Your task to perform on an android device: Search for beats solo 3 on bestbuy, select the first entry, add it to the cart, then select checkout. Image 0: 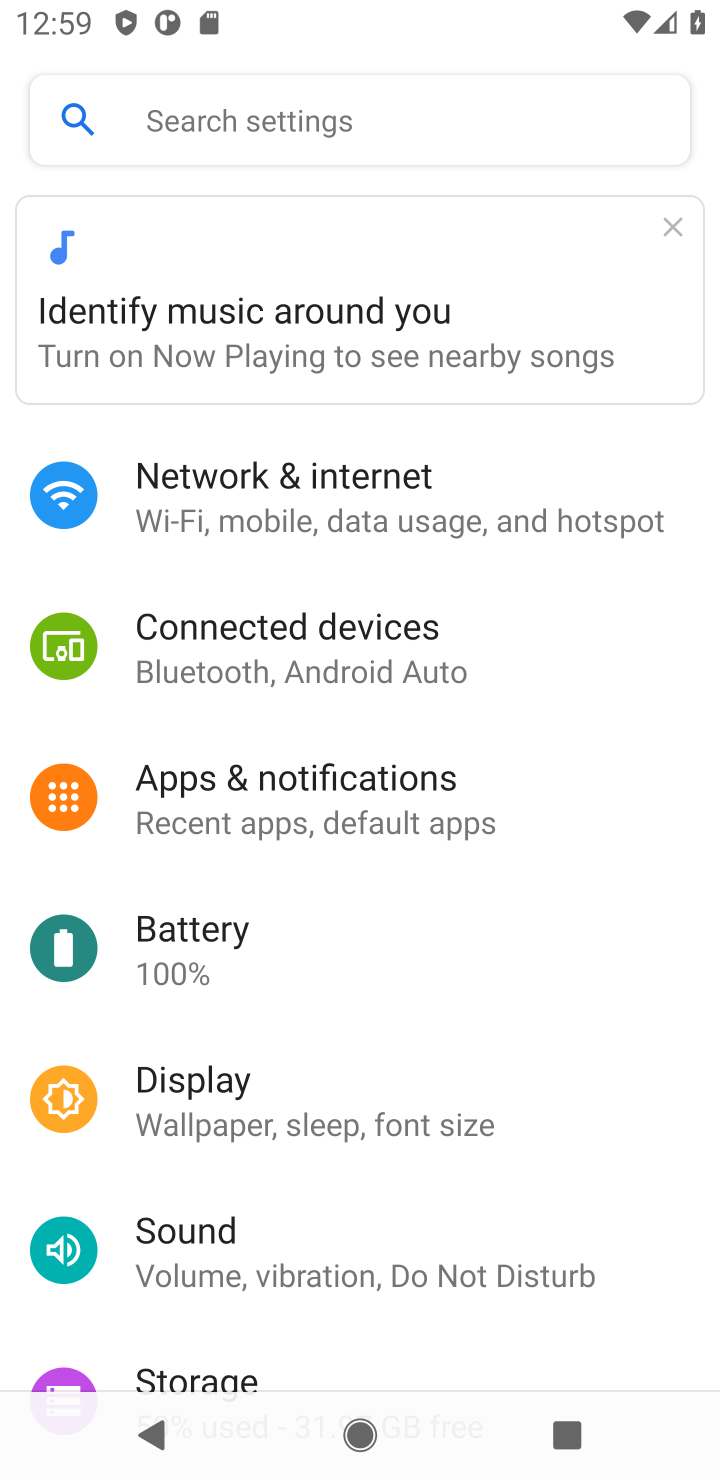
Step 0: press home button
Your task to perform on an android device: Search for beats solo 3 on bestbuy, select the first entry, add it to the cart, then select checkout. Image 1: 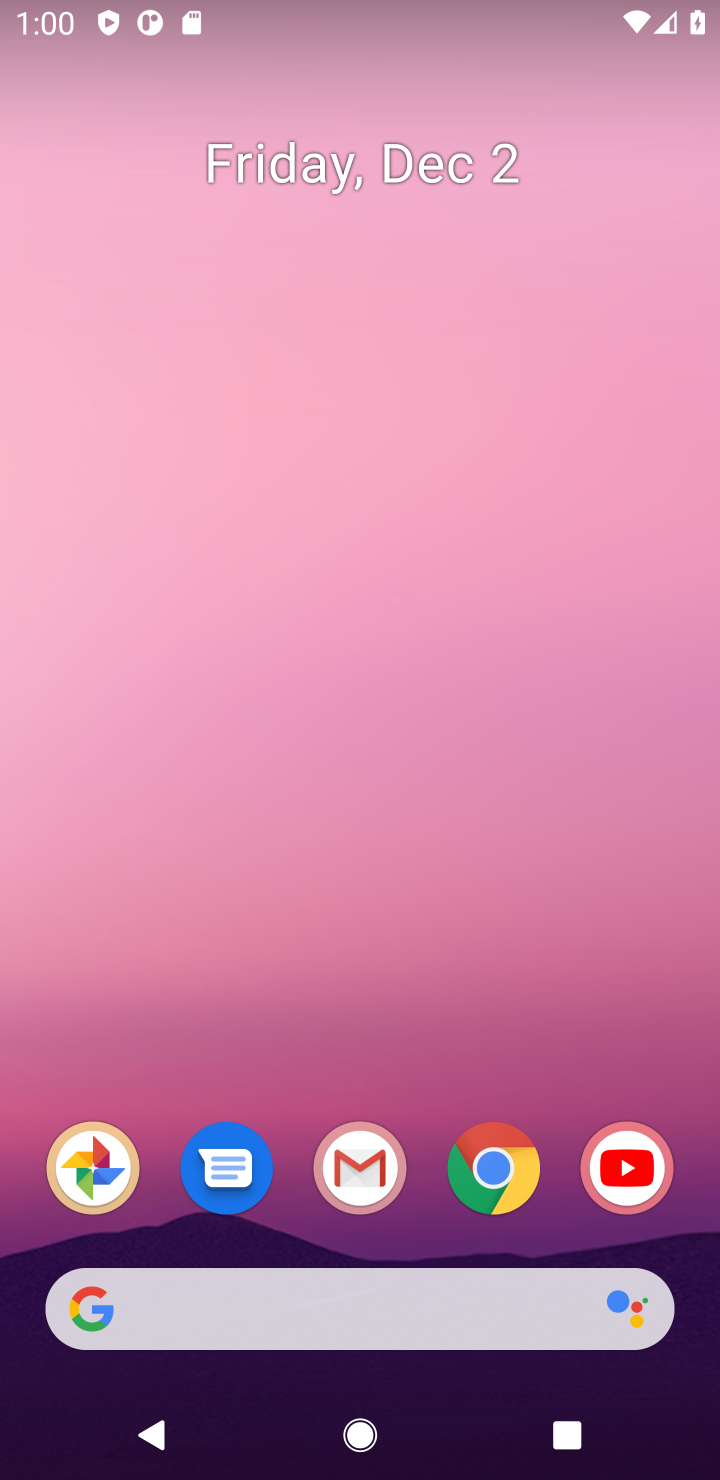
Step 1: click (495, 1170)
Your task to perform on an android device: Search for beats solo 3 on bestbuy, select the first entry, add it to the cart, then select checkout. Image 2: 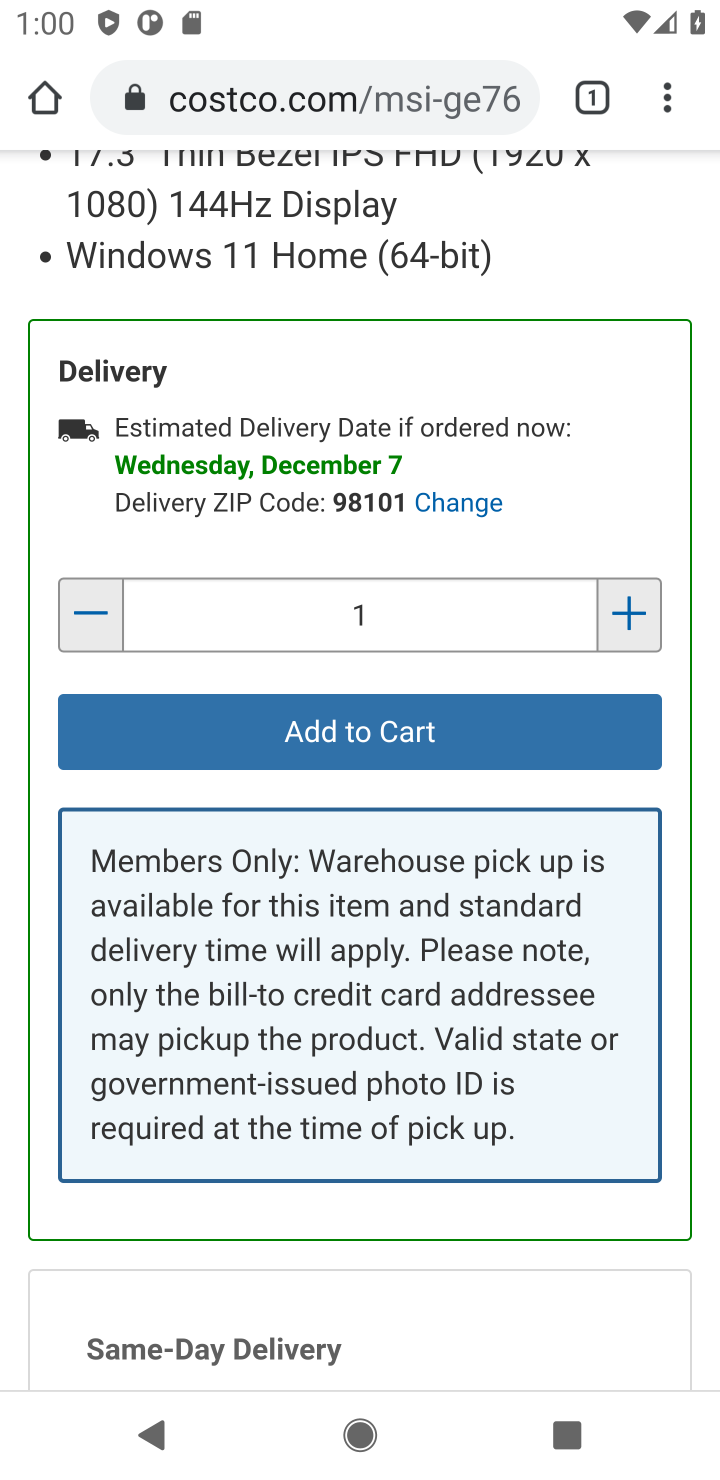
Step 2: click (312, 85)
Your task to perform on an android device: Search for beats solo 3 on bestbuy, select the first entry, add it to the cart, then select checkout. Image 3: 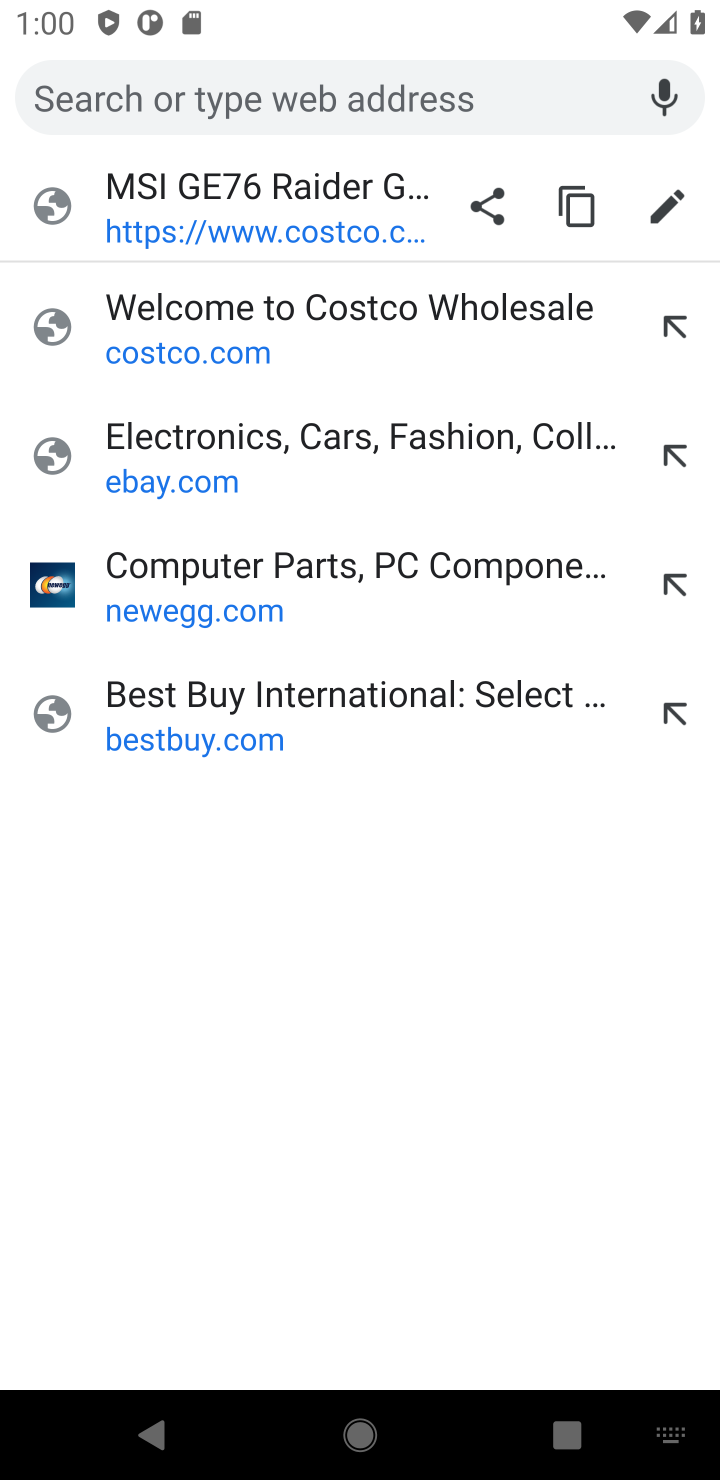
Step 3: click (260, 723)
Your task to perform on an android device: Search for beats solo 3 on bestbuy, select the first entry, add it to the cart, then select checkout. Image 4: 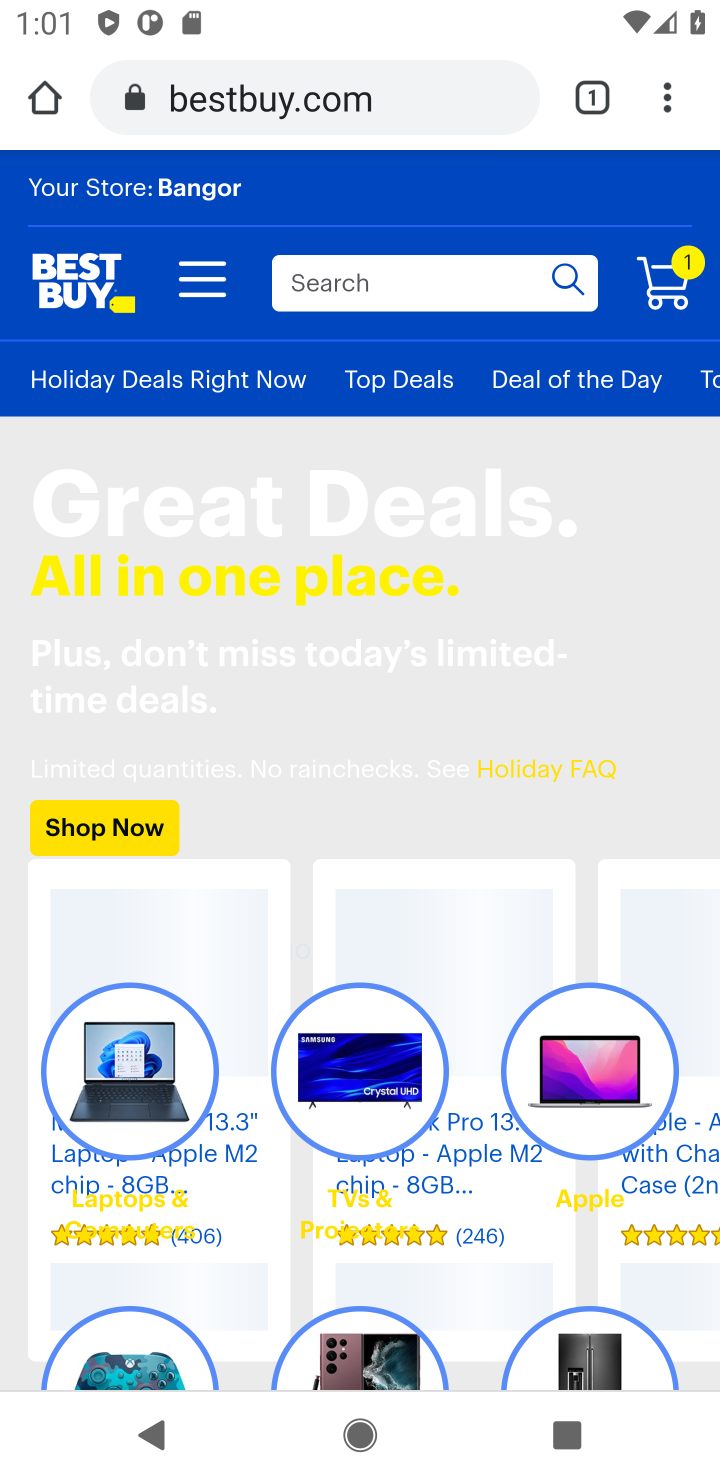
Step 4: click (437, 269)
Your task to perform on an android device: Search for beats solo 3 on bestbuy, select the first entry, add it to the cart, then select checkout. Image 5: 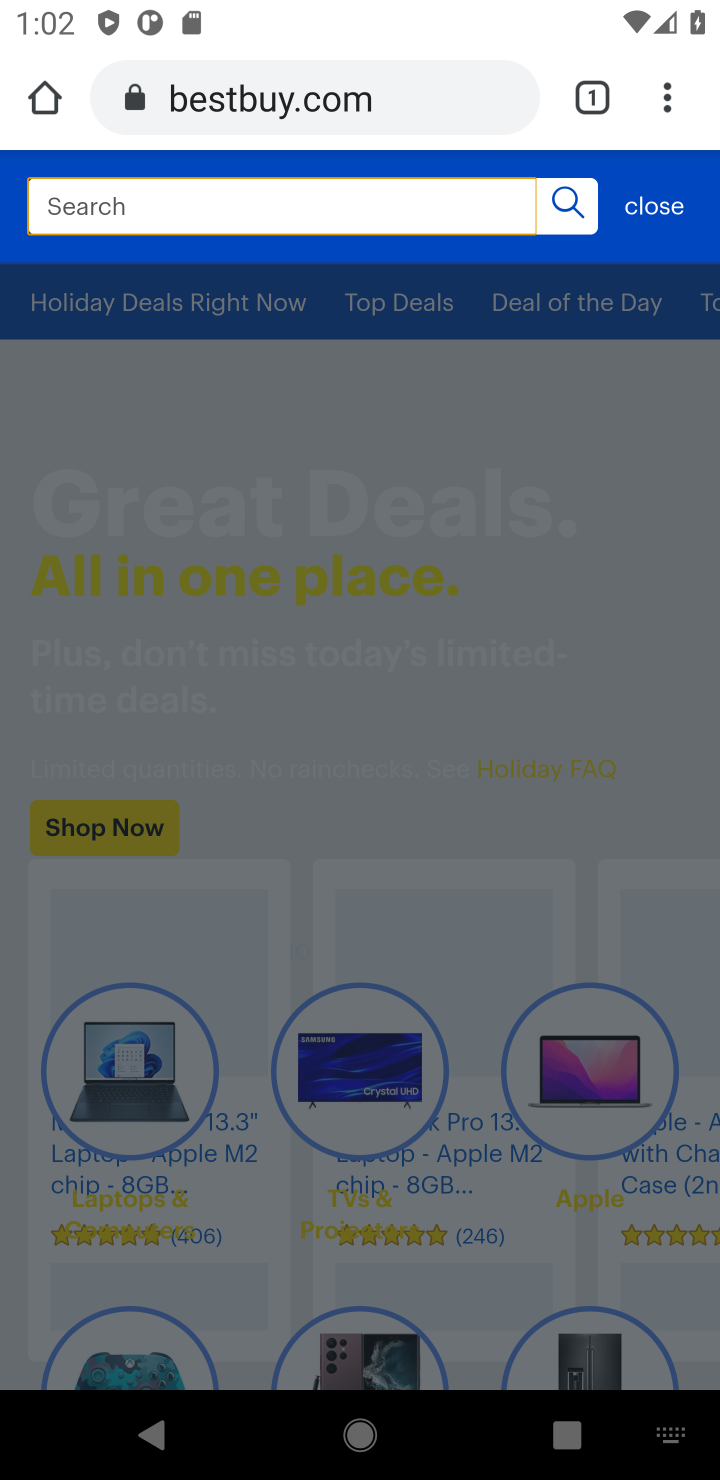
Step 5: type "beats solo 3"
Your task to perform on an android device: Search for beats solo 3 on bestbuy, select the first entry, add it to the cart, then select checkout. Image 6: 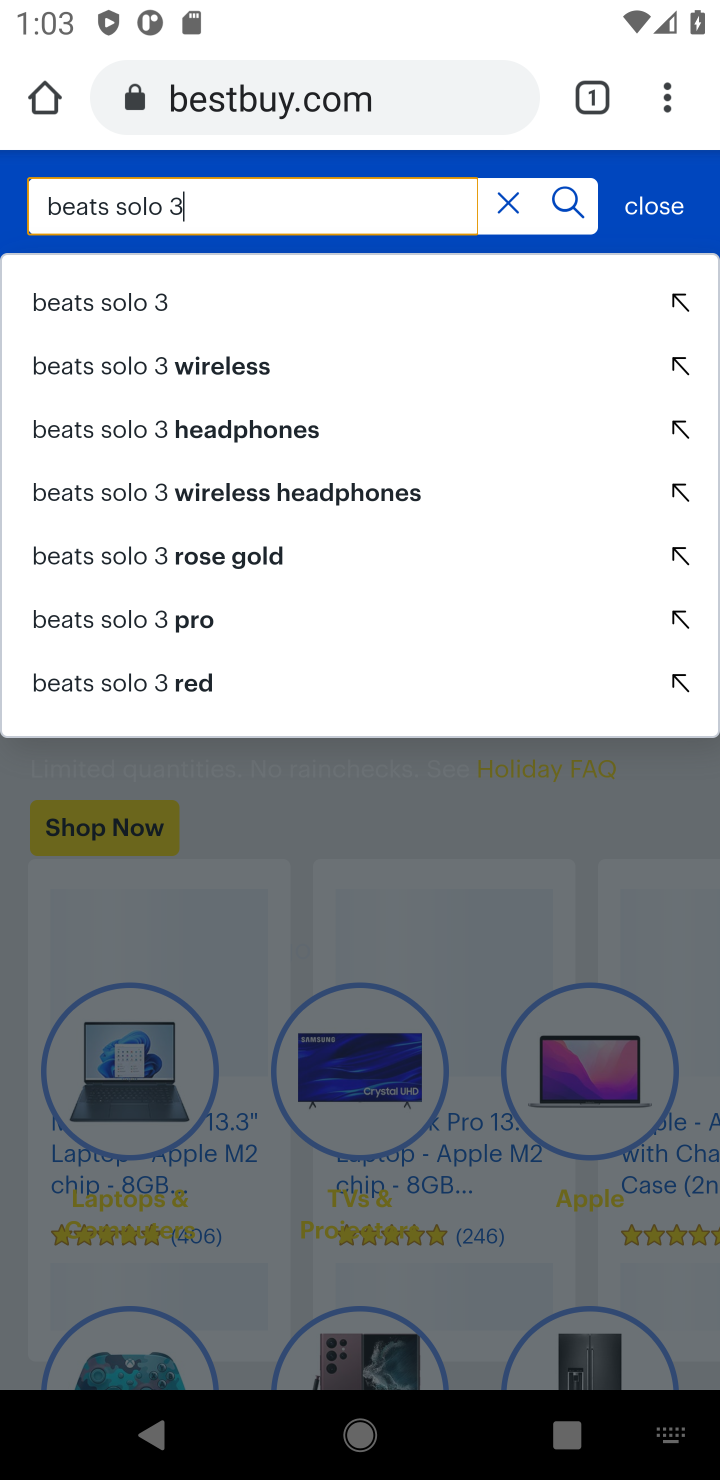
Step 6: click (121, 303)
Your task to perform on an android device: Search for beats solo 3 on bestbuy, select the first entry, add it to the cart, then select checkout. Image 7: 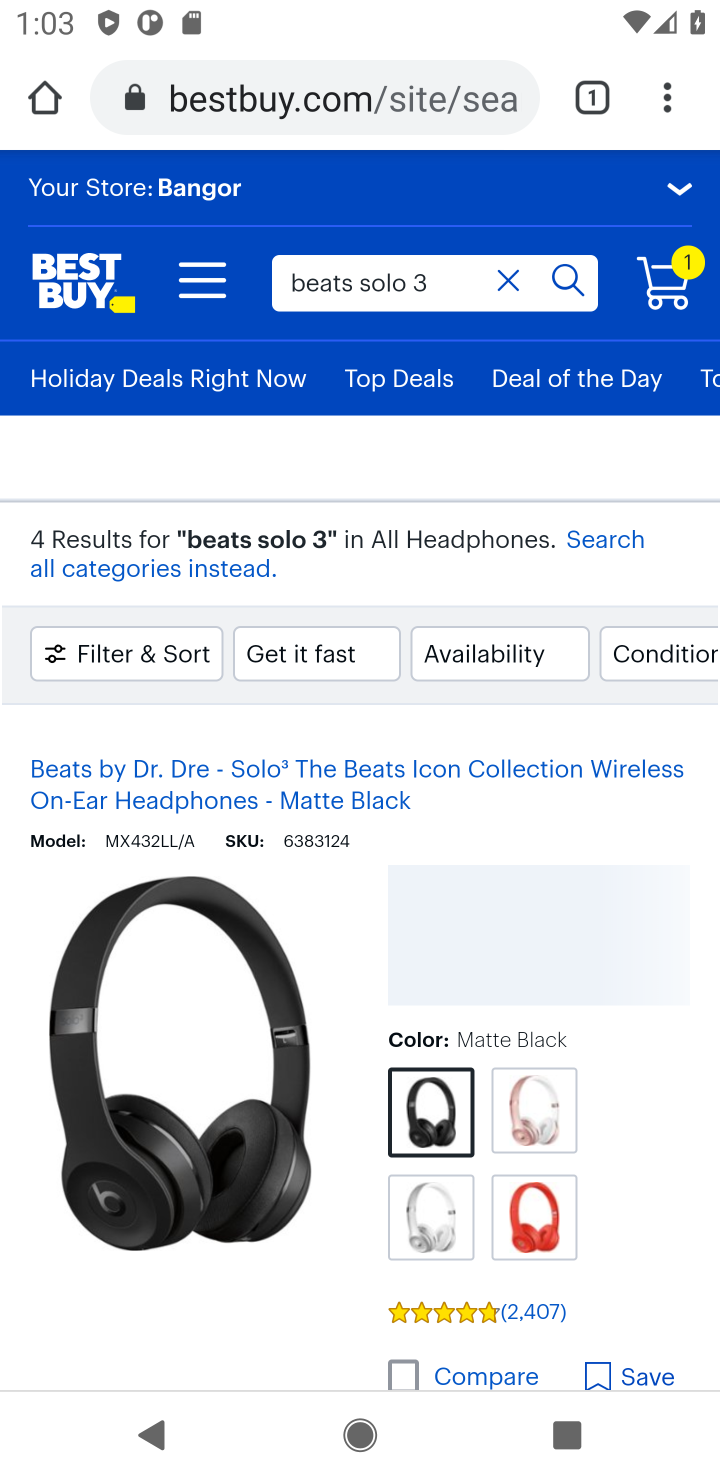
Step 7: click (273, 1025)
Your task to perform on an android device: Search for beats solo 3 on bestbuy, select the first entry, add it to the cart, then select checkout. Image 8: 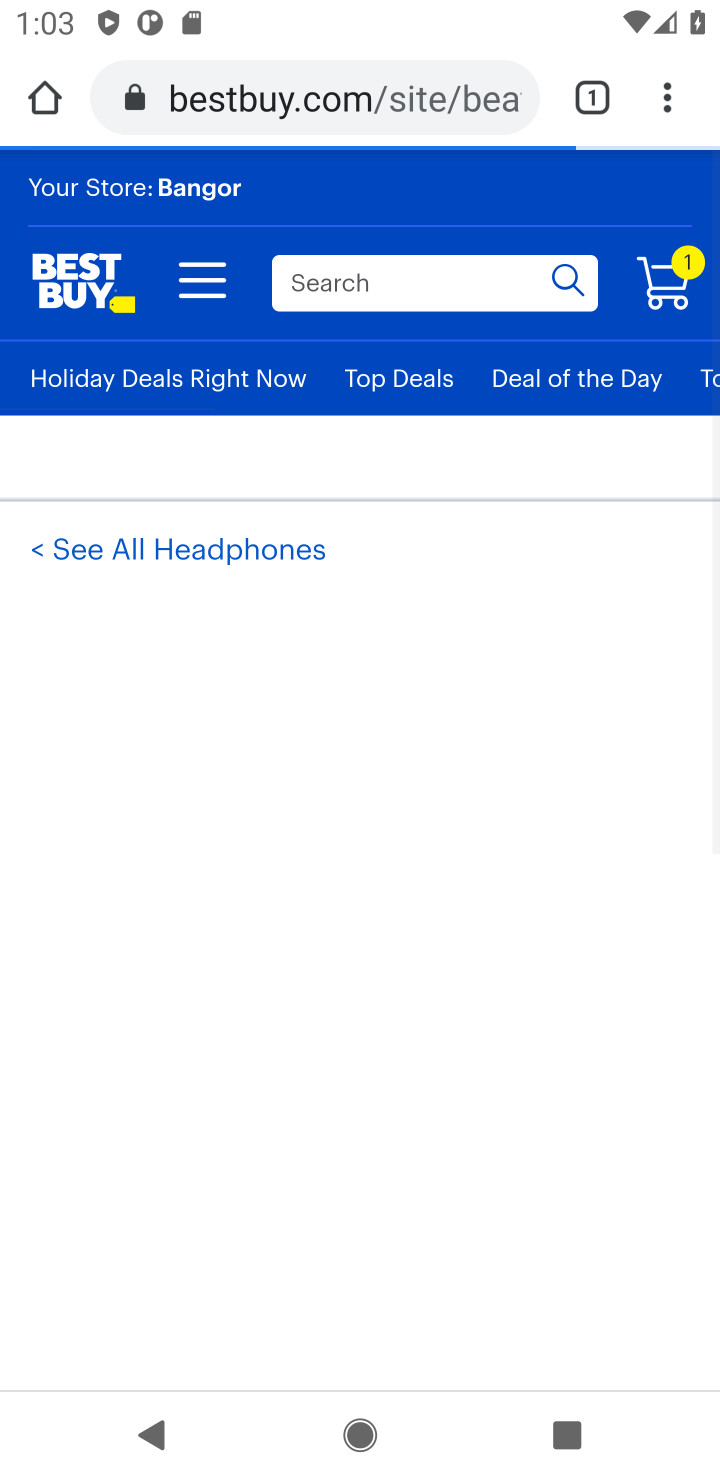
Step 8: click (545, 1371)
Your task to perform on an android device: Search for beats solo 3 on bestbuy, select the first entry, add it to the cart, then select checkout. Image 9: 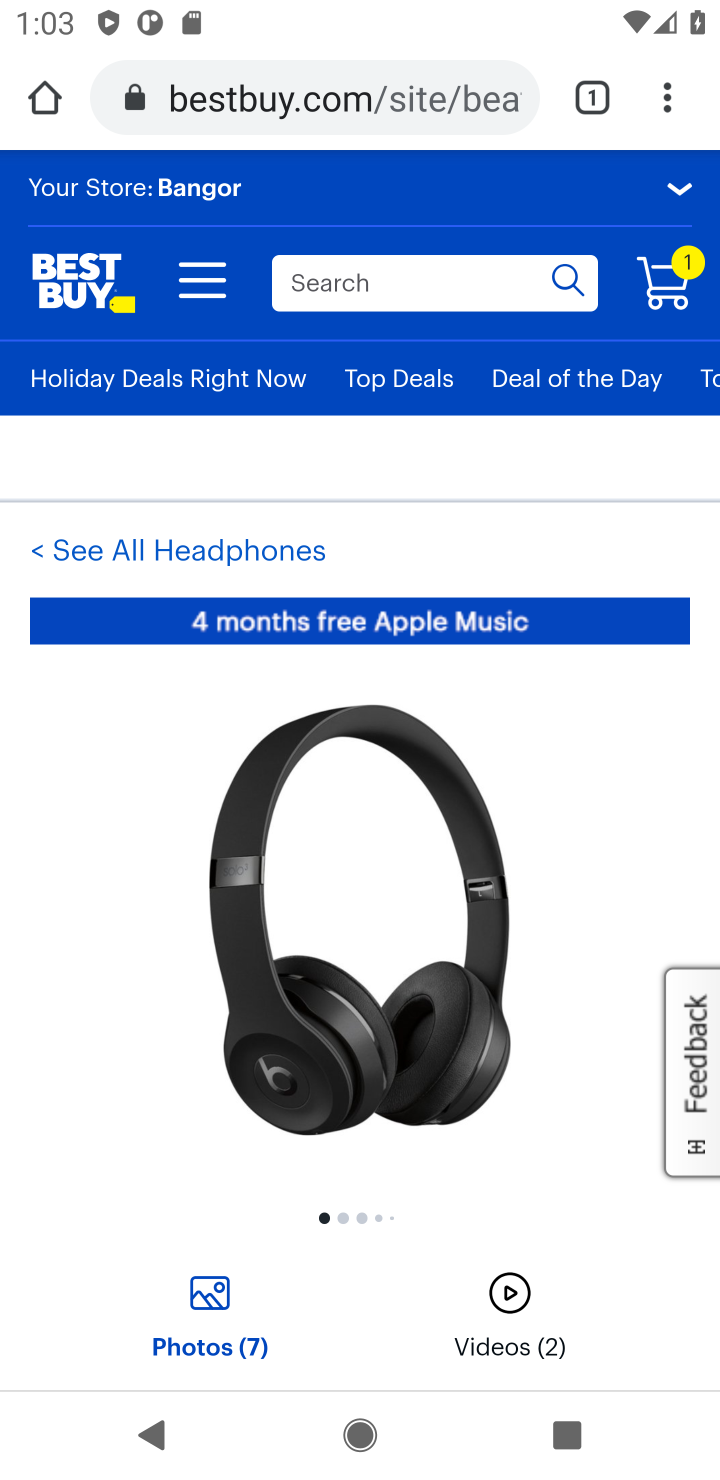
Step 9: drag from (366, 1256) to (340, 609)
Your task to perform on an android device: Search for beats solo 3 on bestbuy, select the first entry, add it to the cart, then select checkout. Image 10: 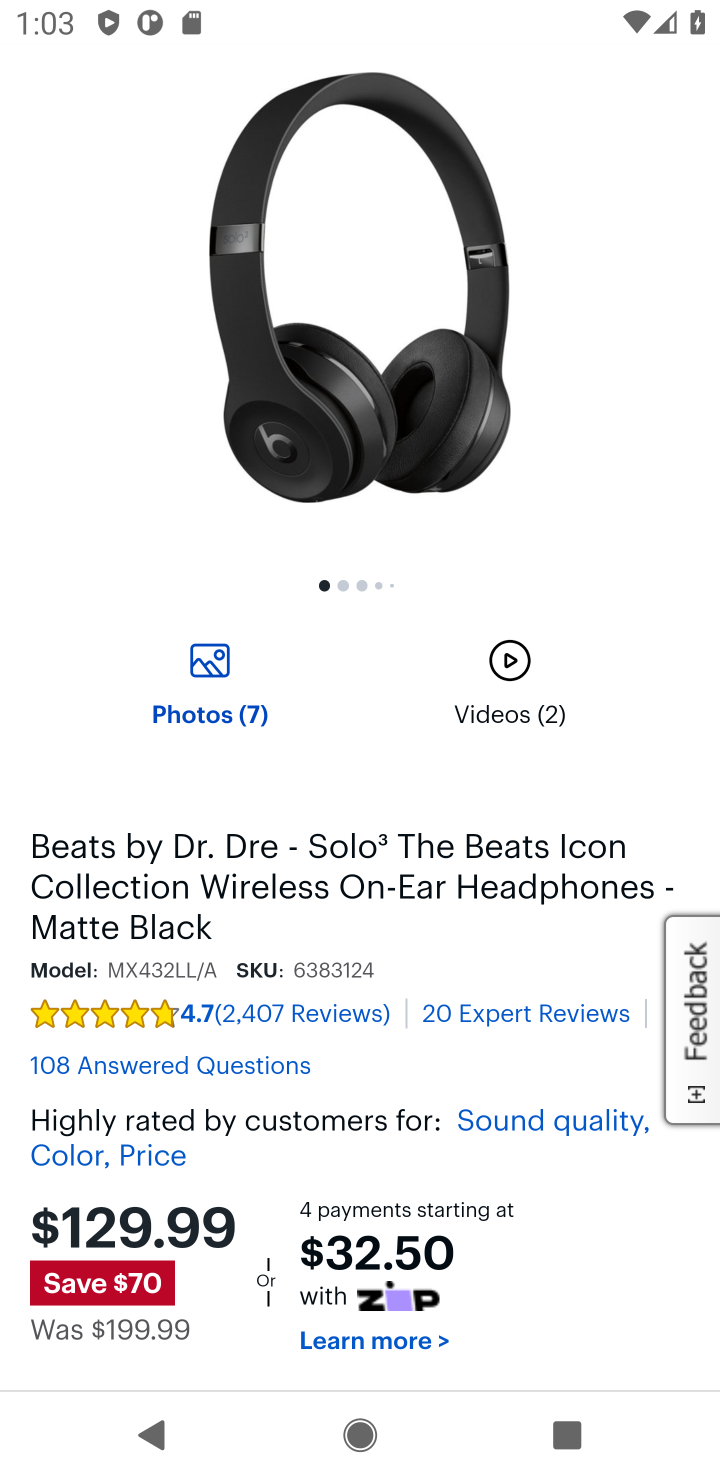
Step 10: drag from (593, 1257) to (526, 453)
Your task to perform on an android device: Search for beats solo 3 on bestbuy, select the first entry, add it to the cart, then select checkout. Image 11: 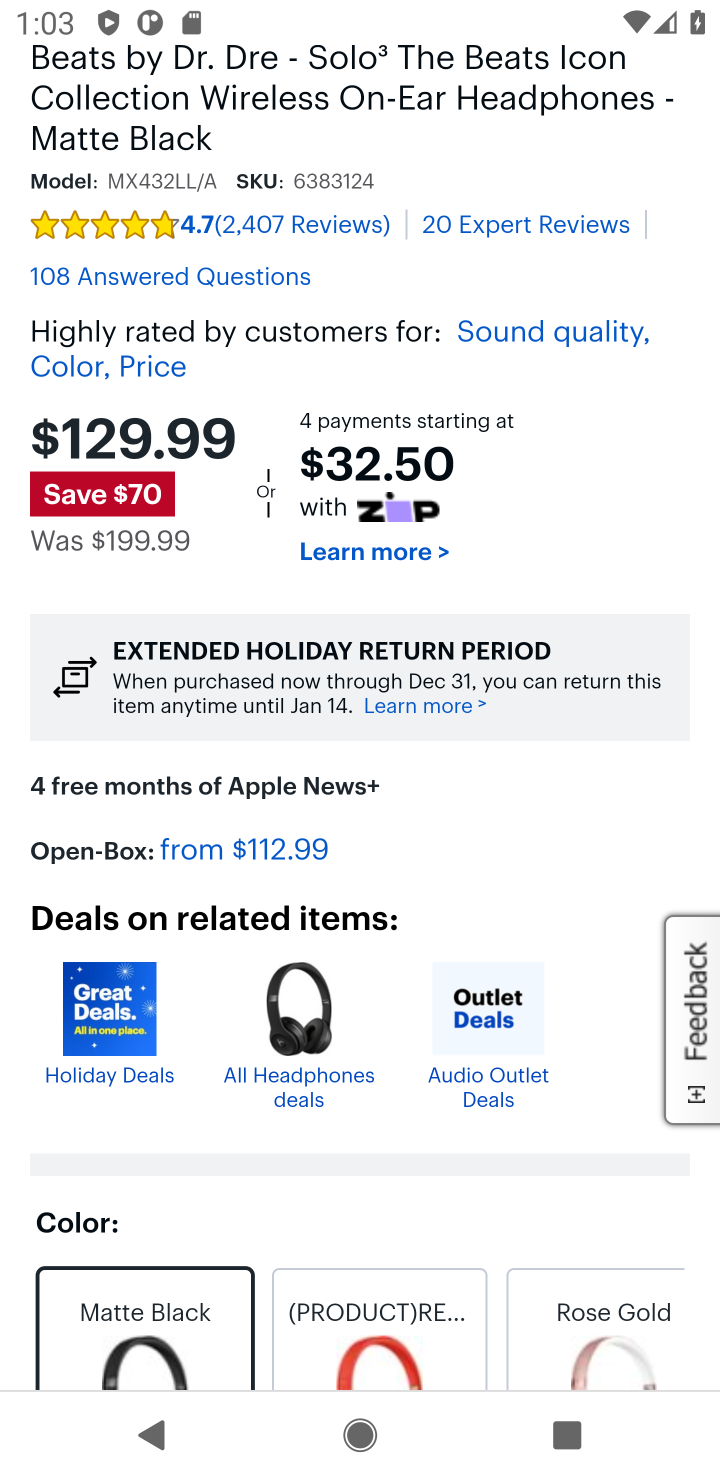
Step 11: drag from (481, 1000) to (481, 361)
Your task to perform on an android device: Search for beats solo 3 on bestbuy, select the first entry, add it to the cart, then select checkout. Image 12: 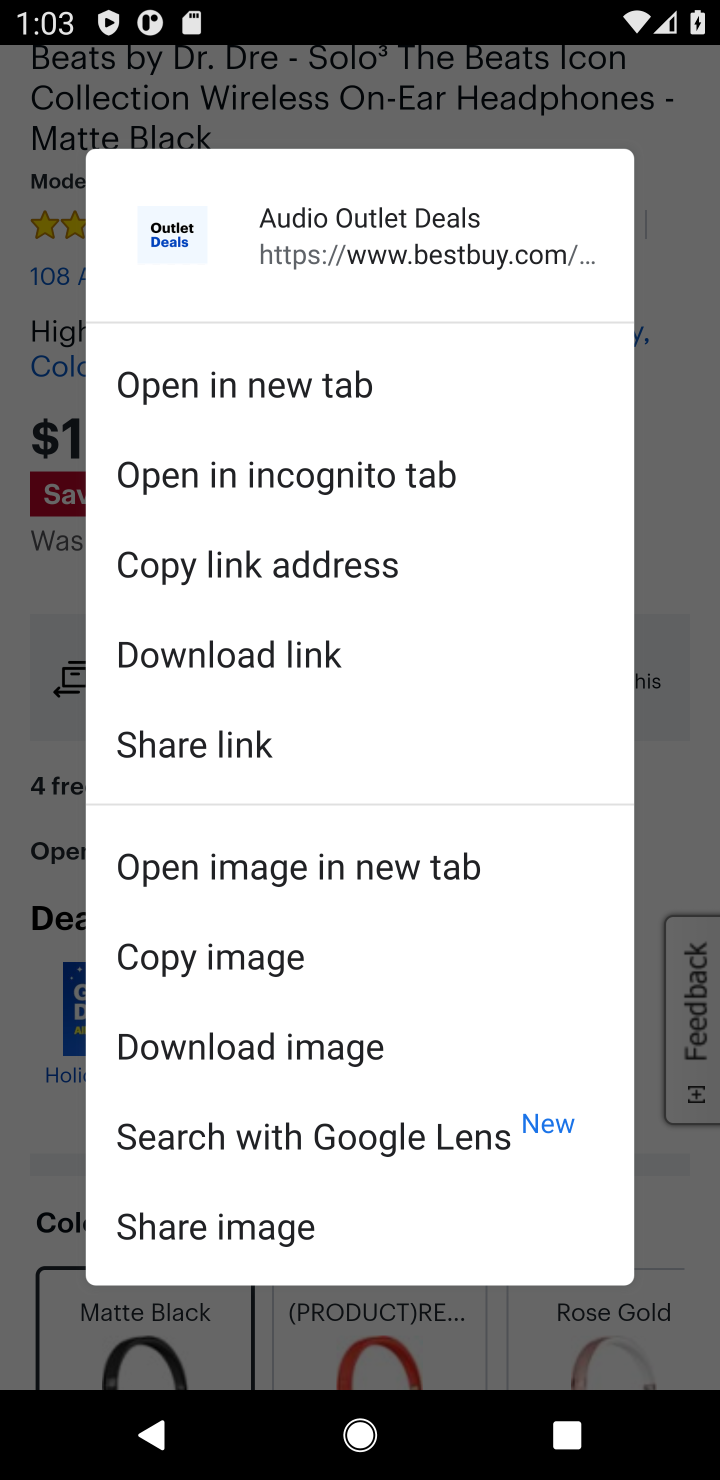
Step 12: click (677, 623)
Your task to perform on an android device: Search for beats solo 3 on bestbuy, select the first entry, add it to the cart, then select checkout. Image 13: 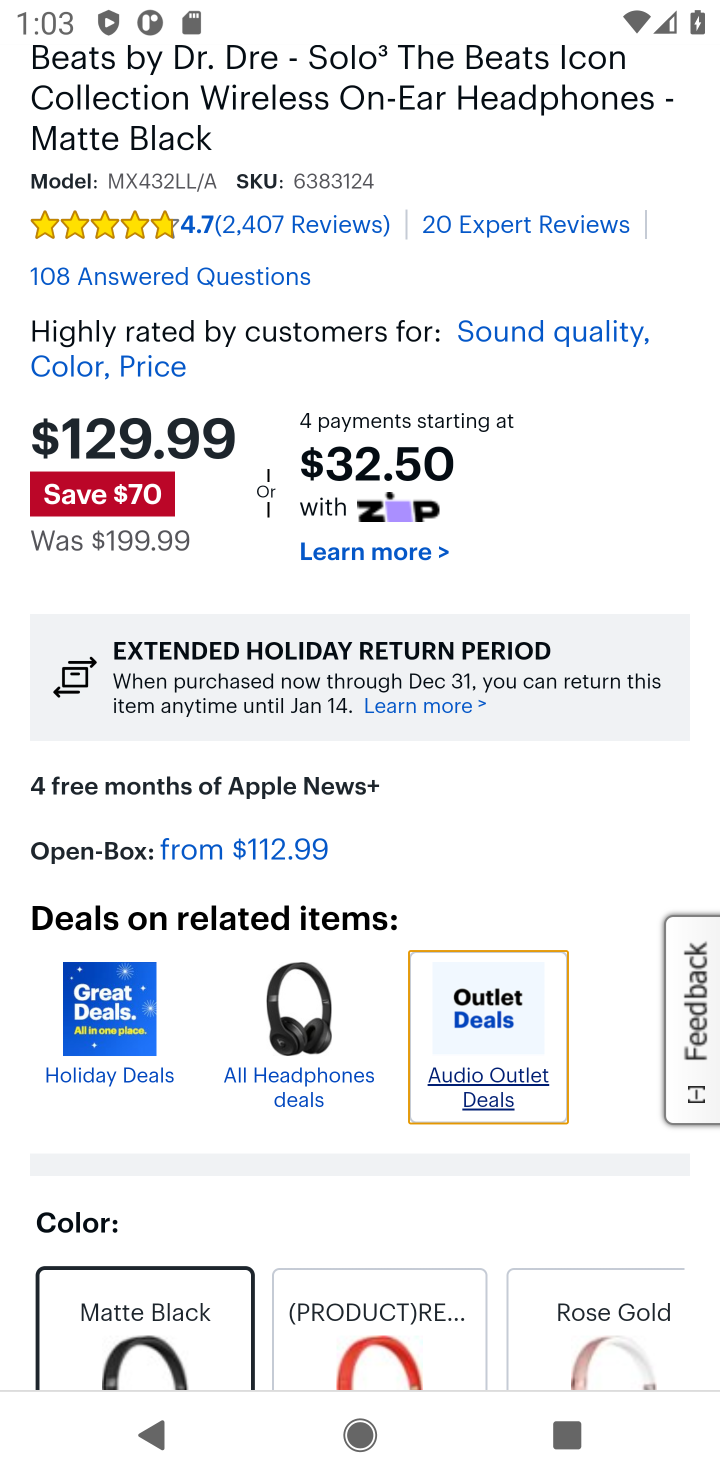
Step 13: drag from (461, 813) to (384, 163)
Your task to perform on an android device: Search for beats solo 3 on bestbuy, select the first entry, add it to the cart, then select checkout. Image 14: 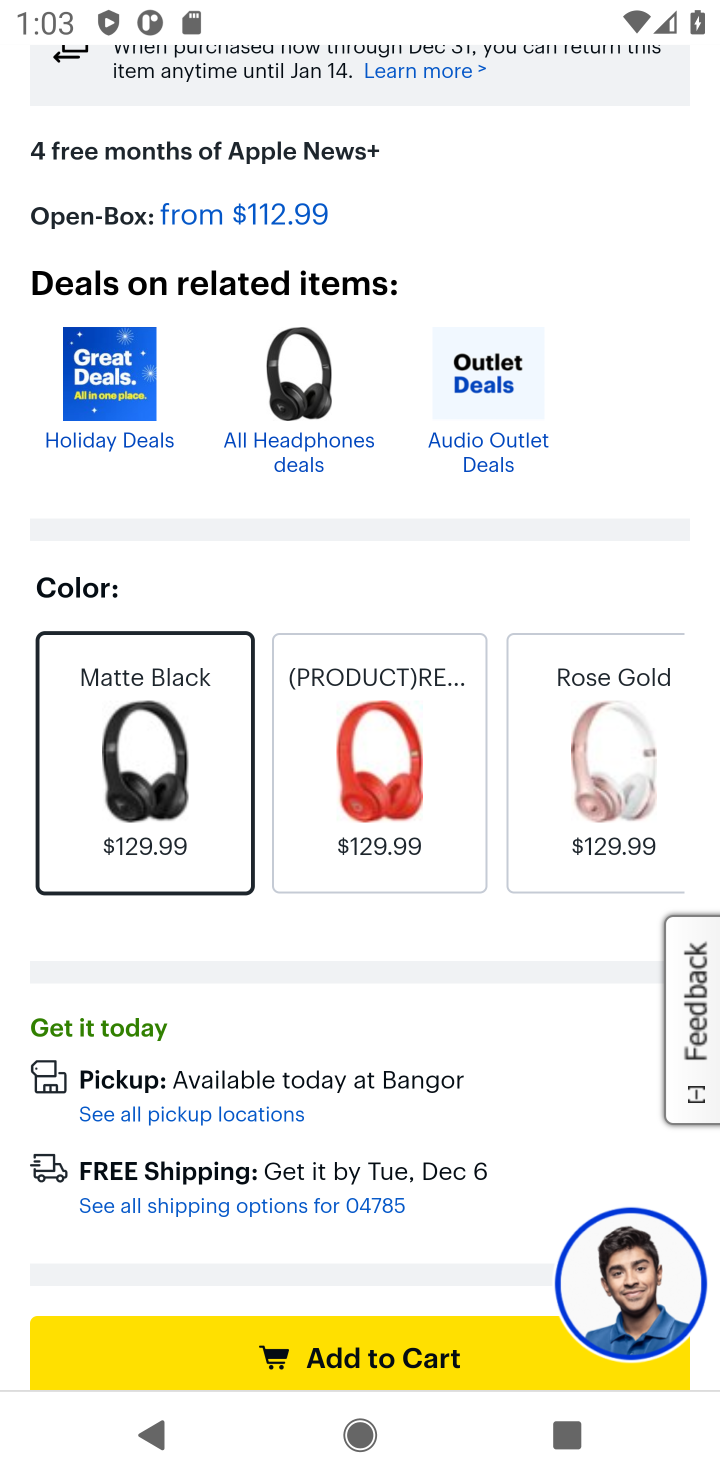
Step 14: click (390, 1333)
Your task to perform on an android device: Search for beats solo 3 on bestbuy, select the first entry, add it to the cart, then select checkout. Image 15: 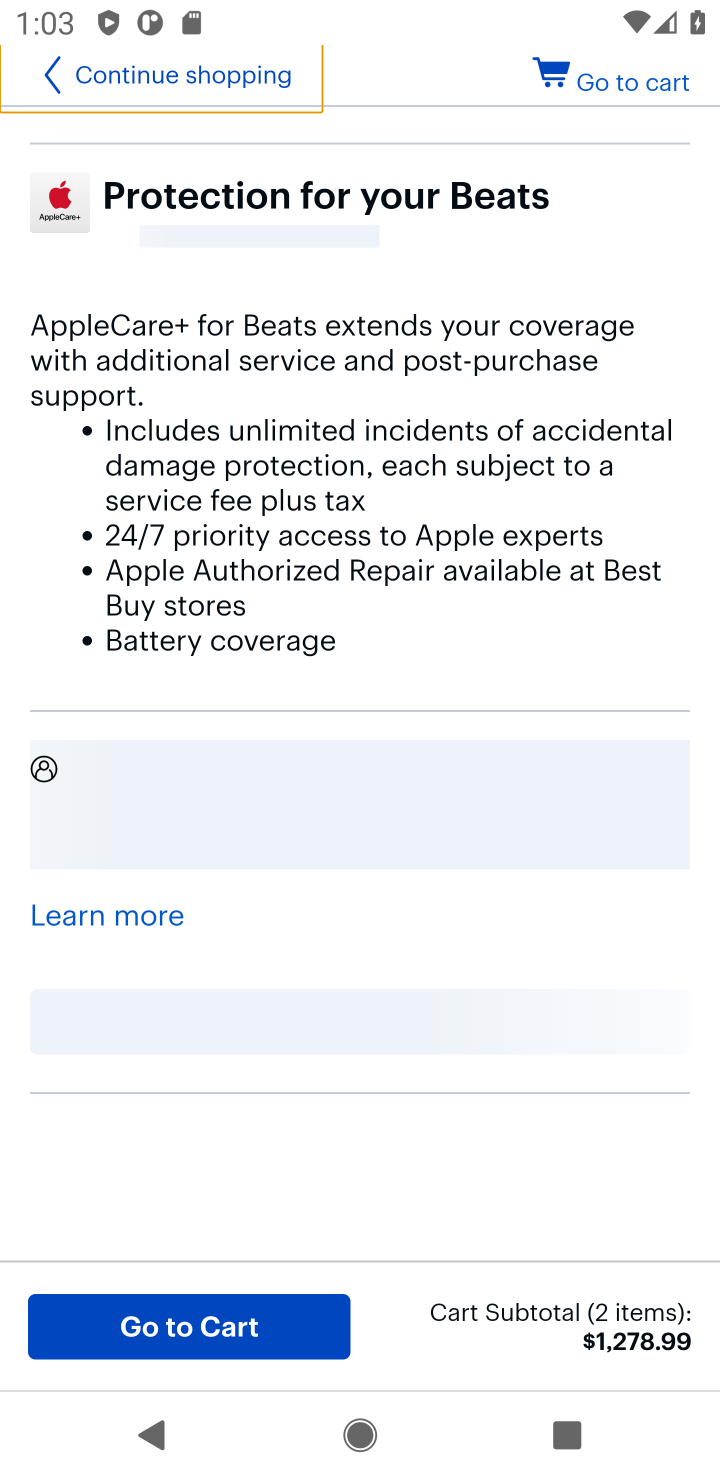
Step 15: click (213, 1331)
Your task to perform on an android device: Search for beats solo 3 on bestbuy, select the first entry, add it to the cart, then select checkout. Image 16: 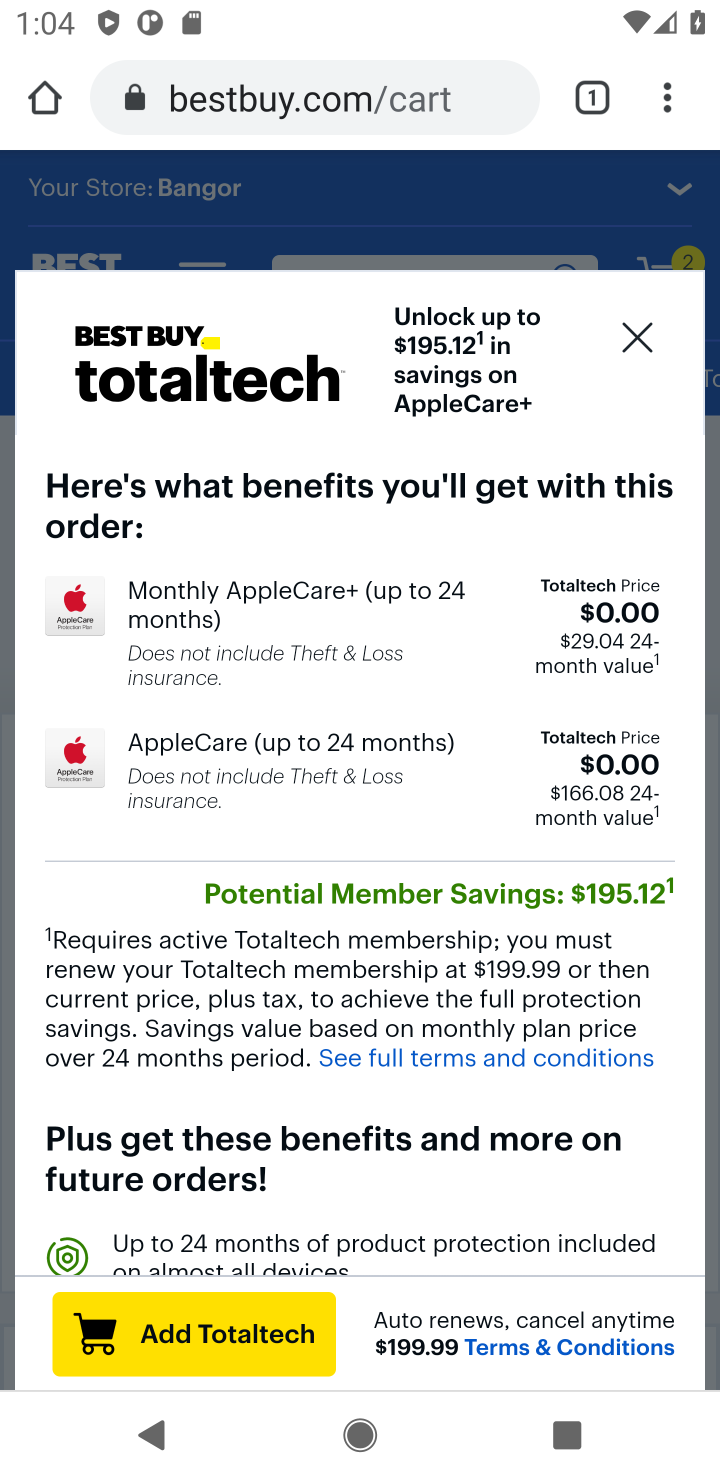
Step 16: click (633, 335)
Your task to perform on an android device: Search for beats solo 3 on bestbuy, select the first entry, add it to the cart, then select checkout. Image 17: 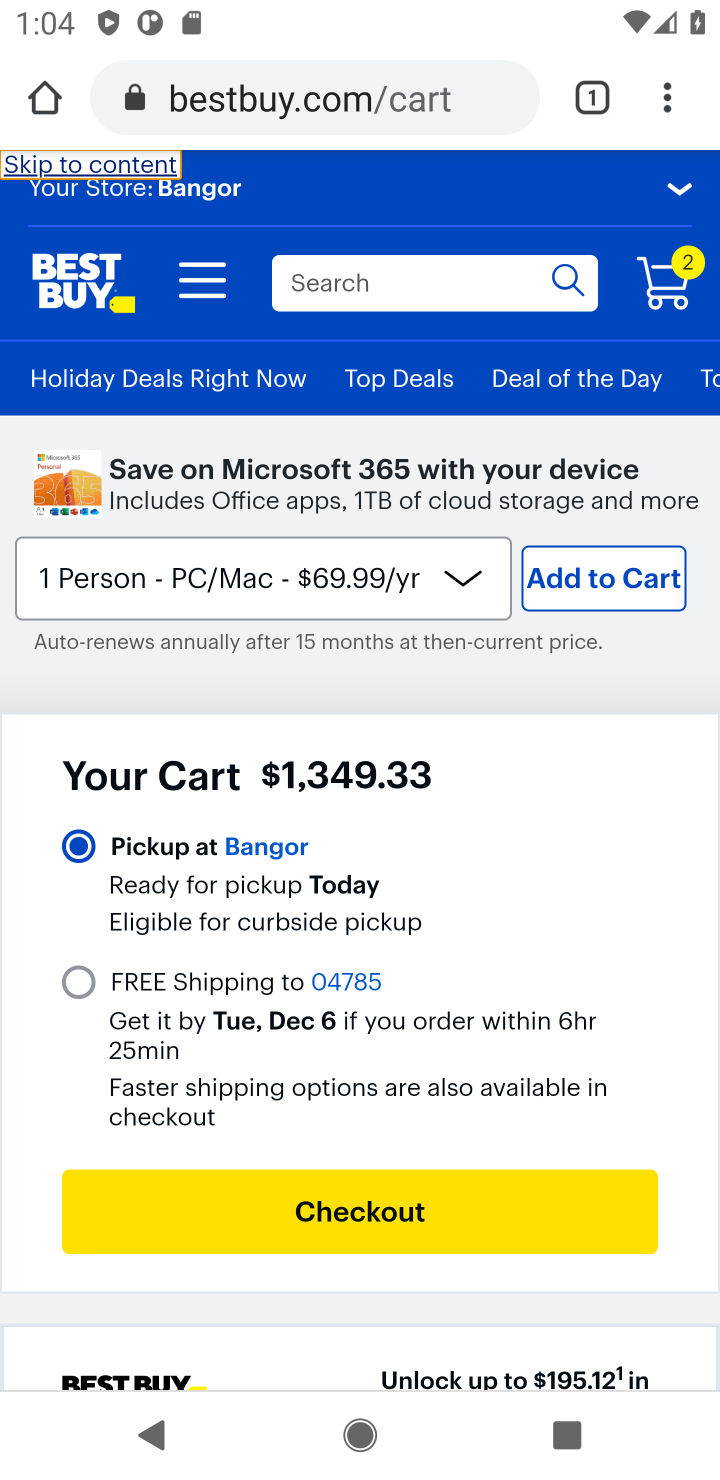
Step 17: click (357, 1211)
Your task to perform on an android device: Search for beats solo 3 on bestbuy, select the first entry, add it to the cart, then select checkout. Image 18: 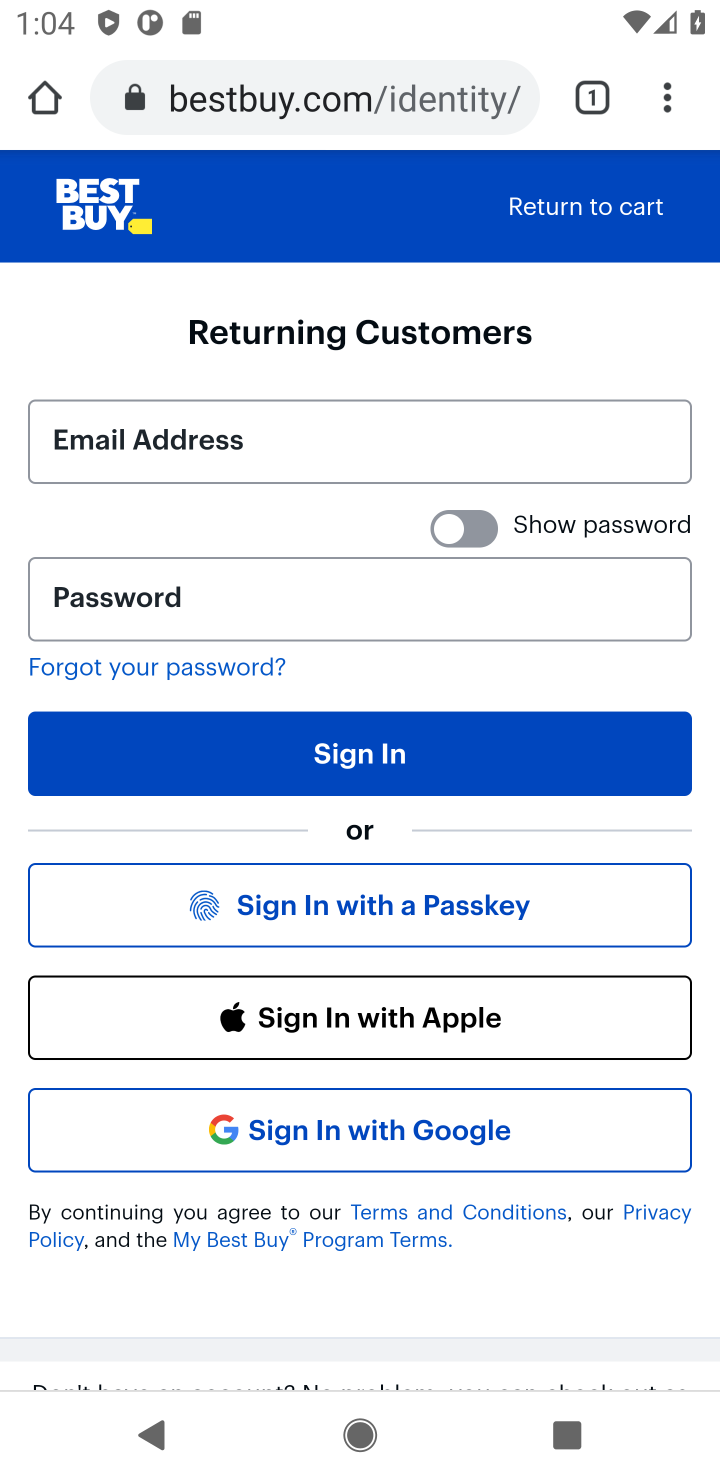
Step 18: task complete